Your task to perform on an android device: Open Amazon Image 0: 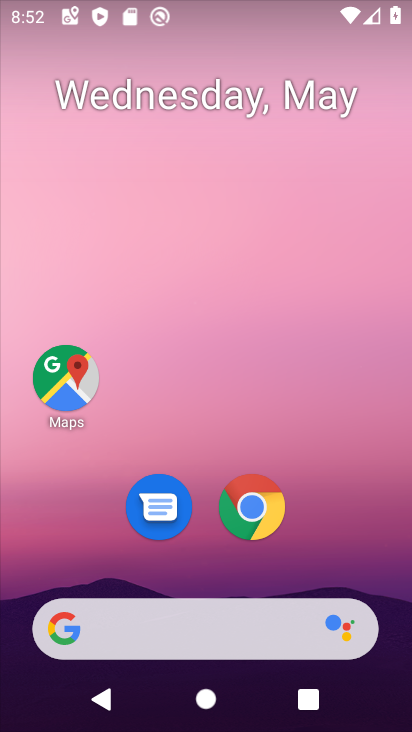
Step 0: click (272, 527)
Your task to perform on an android device: Open Amazon Image 1: 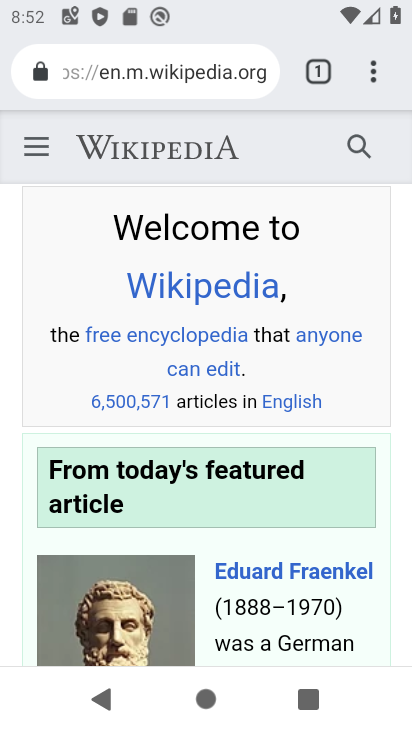
Step 1: click (322, 70)
Your task to perform on an android device: Open Amazon Image 2: 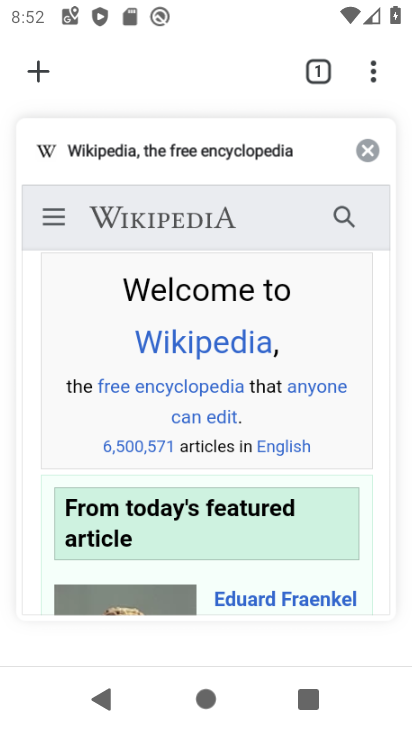
Step 2: click (39, 84)
Your task to perform on an android device: Open Amazon Image 3: 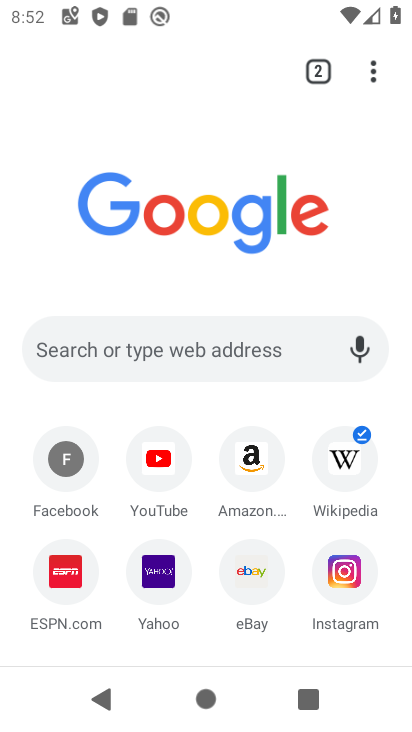
Step 3: click (256, 495)
Your task to perform on an android device: Open Amazon Image 4: 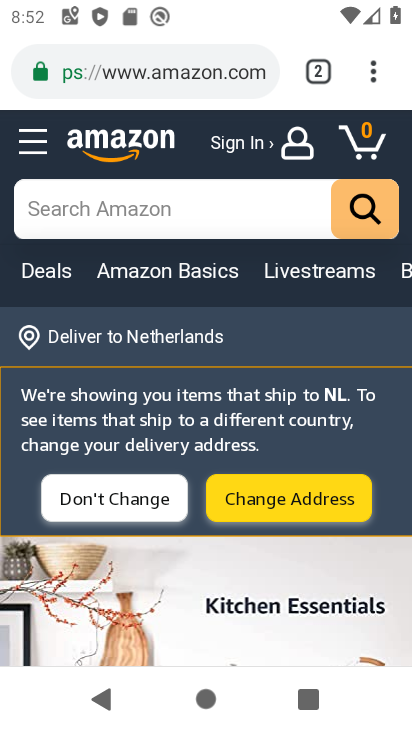
Step 4: task complete